Your task to perform on an android device: set the stopwatch Image 0: 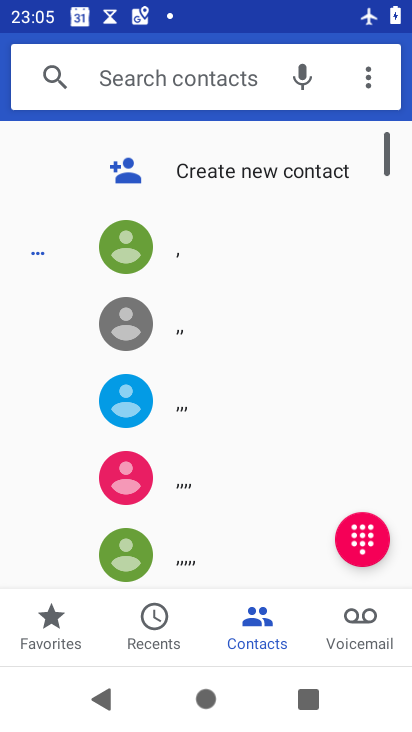
Step 0: press home button
Your task to perform on an android device: set the stopwatch Image 1: 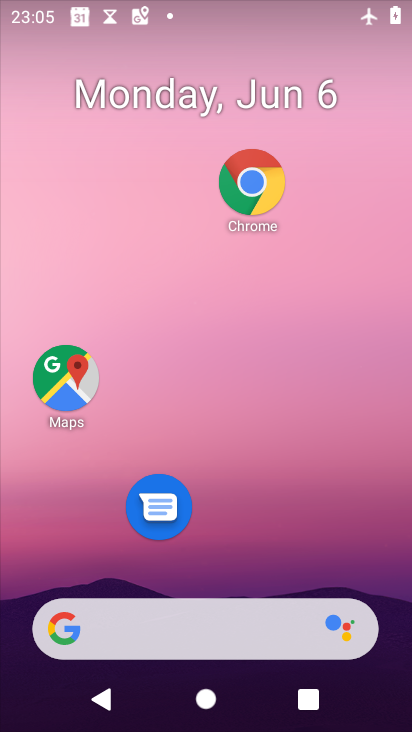
Step 1: drag from (224, 591) to (224, 232)
Your task to perform on an android device: set the stopwatch Image 2: 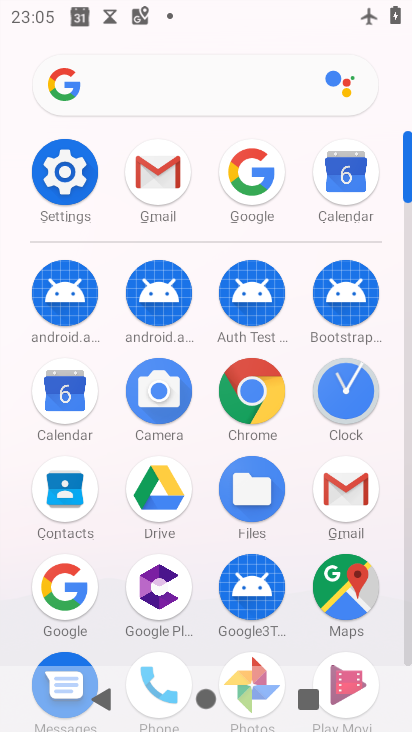
Step 2: click (342, 388)
Your task to perform on an android device: set the stopwatch Image 3: 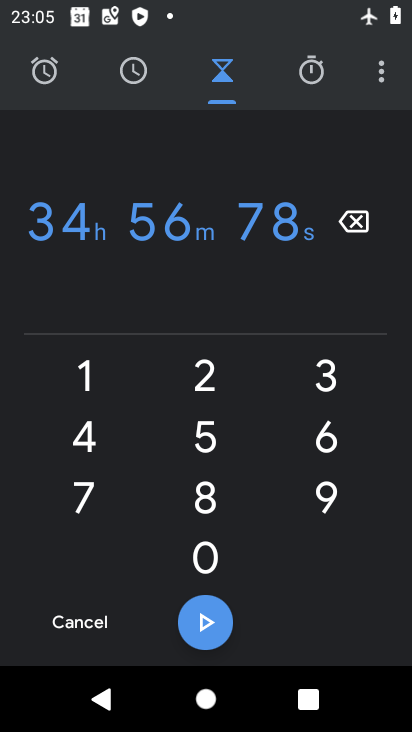
Step 3: click (309, 72)
Your task to perform on an android device: set the stopwatch Image 4: 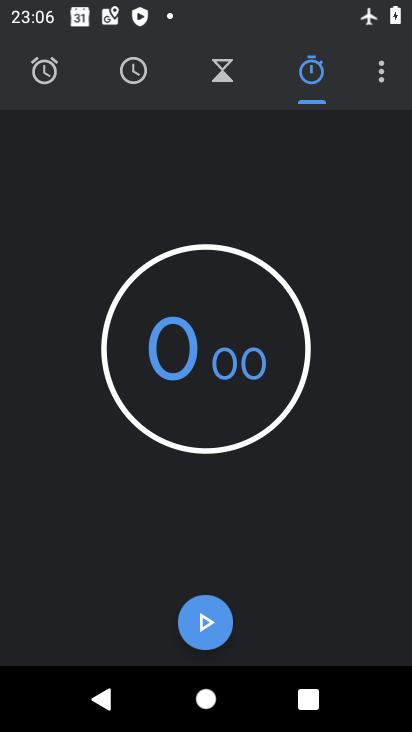
Step 4: task complete